Your task to perform on an android device: turn off improve location accuracy Image 0: 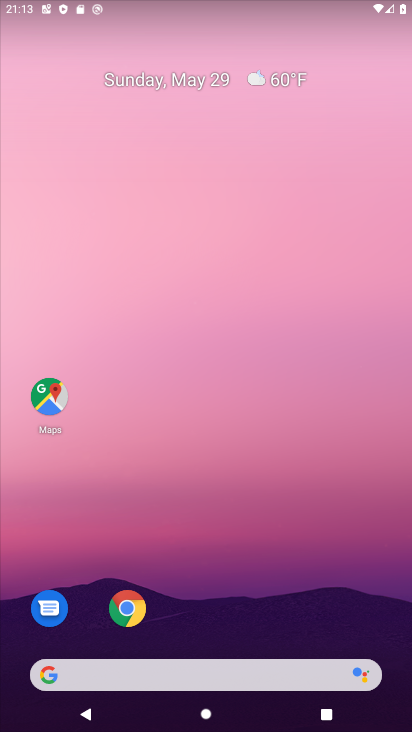
Step 0: drag from (340, 621) to (364, 299)
Your task to perform on an android device: turn off improve location accuracy Image 1: 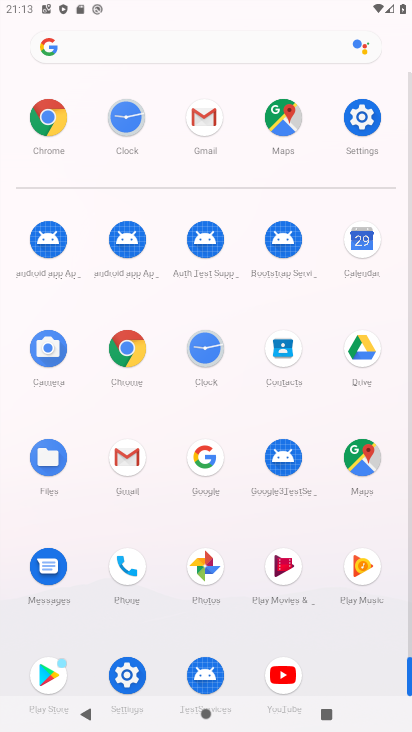
Step 1: click (358, 116)
Your task to perform on an android device: turn off improve location accuracy Image 2: 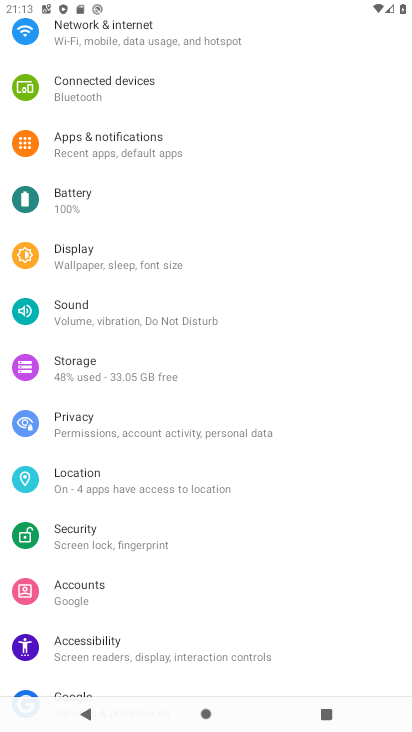
Step 2: click (207, 485)
Your task to perform on an android device: turn off improve location accuracy Image 3: 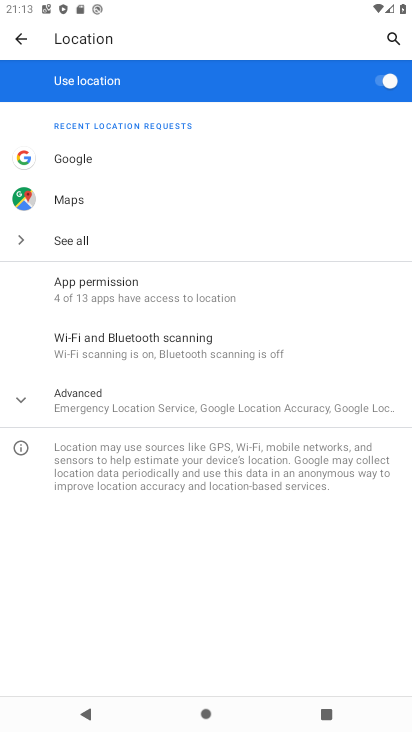
Step 3: click (202, 403)
Your task to perform on an android device: turn off improve location accuracy Image 4: 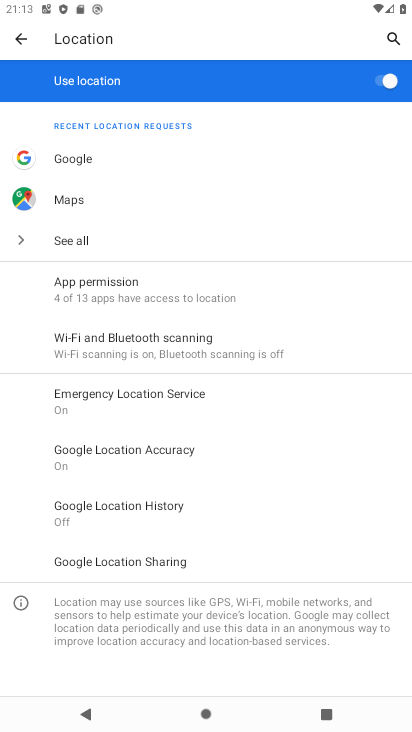
Step 4: click (183, 452)
Your task to perform on an android device: turn off improve location accuracy Image 5: 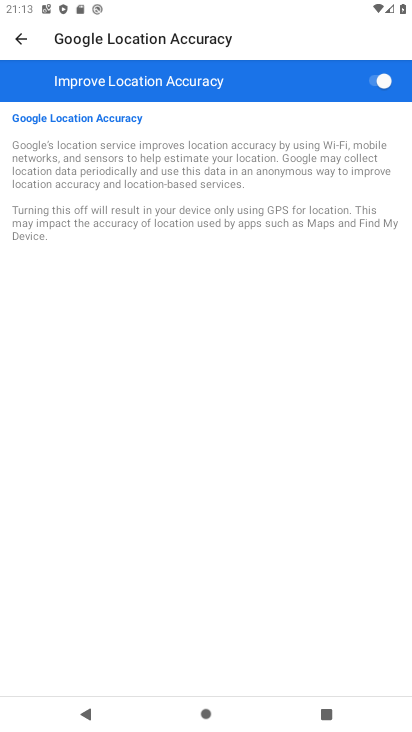
Step 5: click (377, 84)
Your task to perform on an android device: turn off improve location accuracy Image 6: 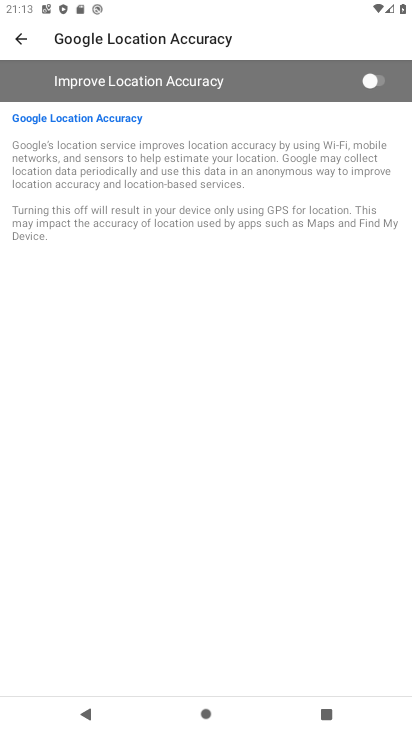
Step 6: task complete